Your task to perform on an android device: turn on translation in the chrome app Image 0: 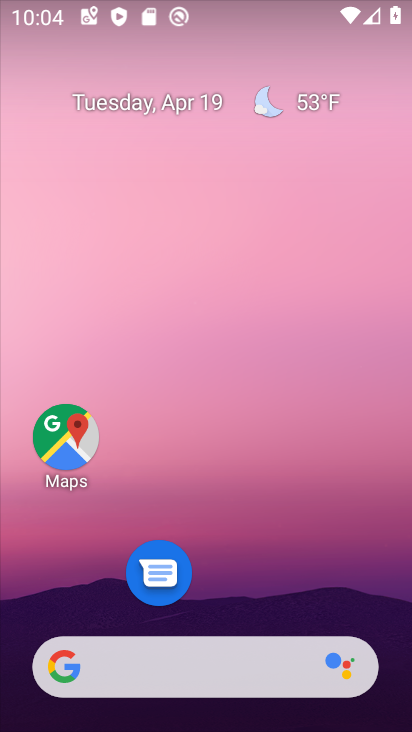
Step 0: drag from (226, 597) to (228, 40)
Your task to perform on an android device: turn on translation in the chrome app Image 1: 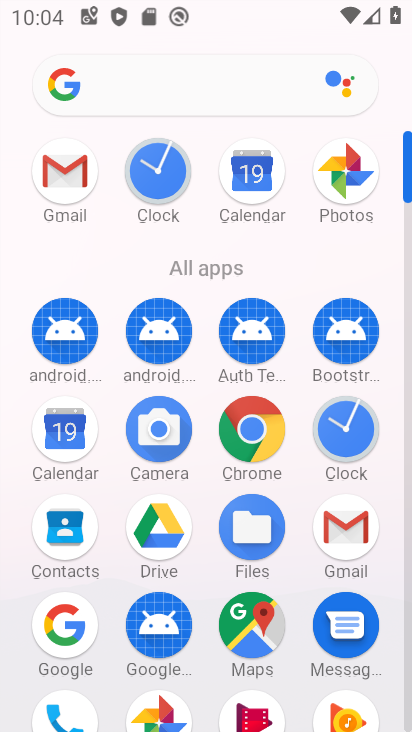
Step 1: click (262, 433)
Your task to perform on an android device: turn on translation in the chrome app Image 2: 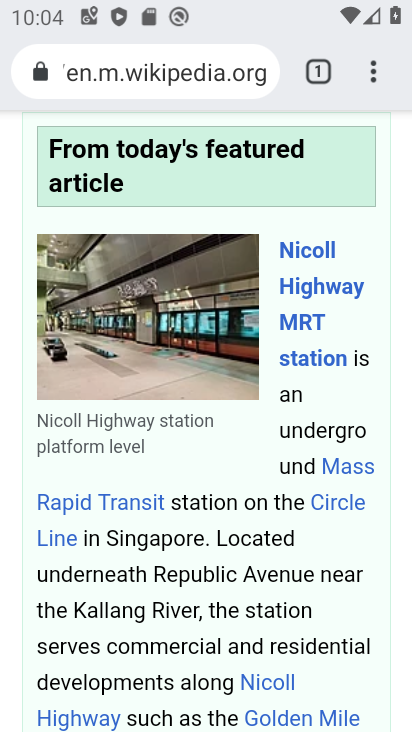
Step 2: click (368, 77)
Your task to perform on an android device: turn on translation in the chrome app Image 3: 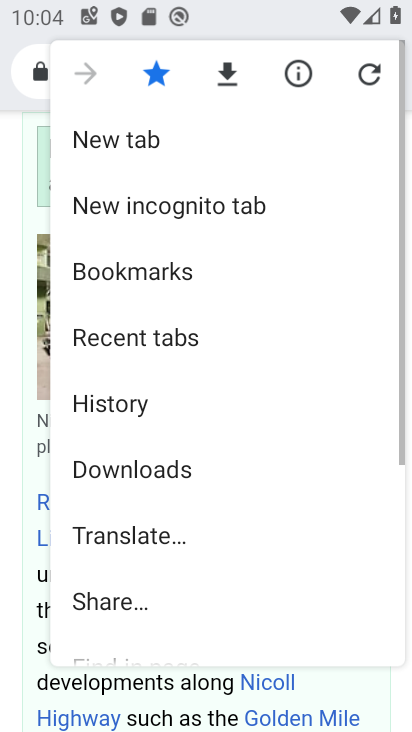
Step 3: drag from (195, 610) to (213, 240)
Your task to perform on an android device: turn on translation in the chrome app Image 4: 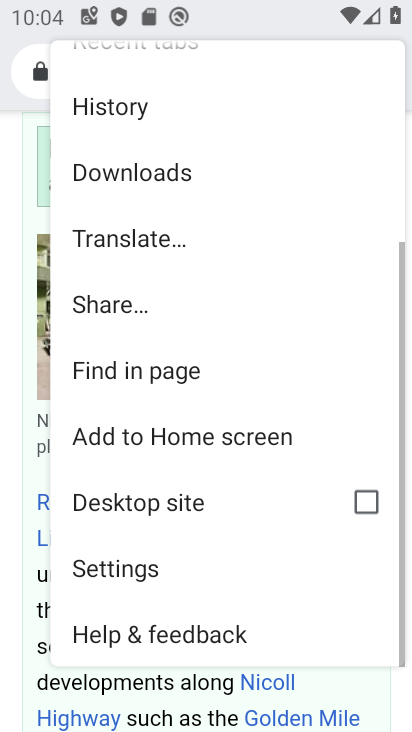
Step 4: click (146, 560)
Your task to perform on an android device: turn on translation in the chrome app Image 5: 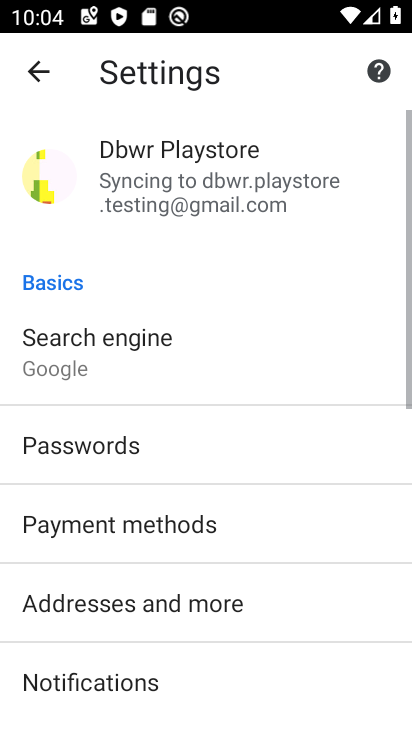
Step 5: drag from (244, 638) to (284, 206)
Your task to perform on an android device: turn on translation in the chrome app Image 6: 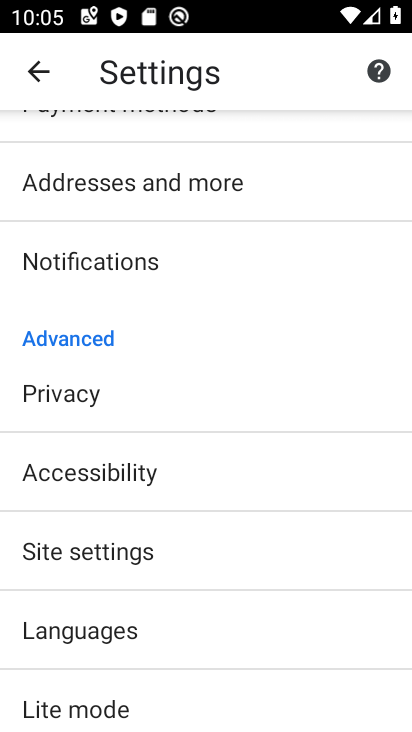
Step 6: click (157, 609)
Your task to perform on an android device: turn on translation in the chrome app Image 7: 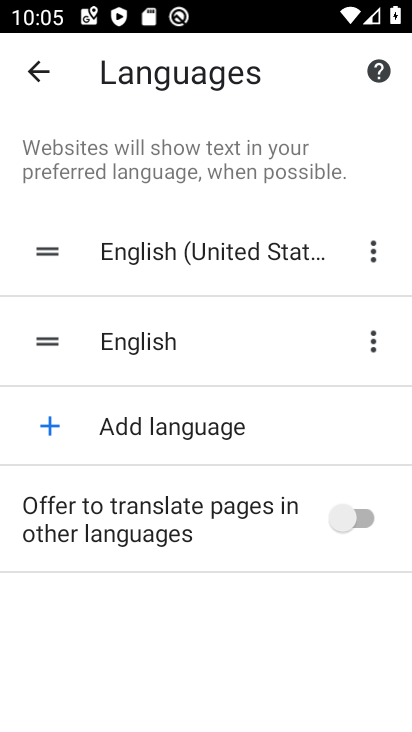
Step 7: click (366, 517)
Your task to perform on an android device: turn on translation in the chrome app Image 8: 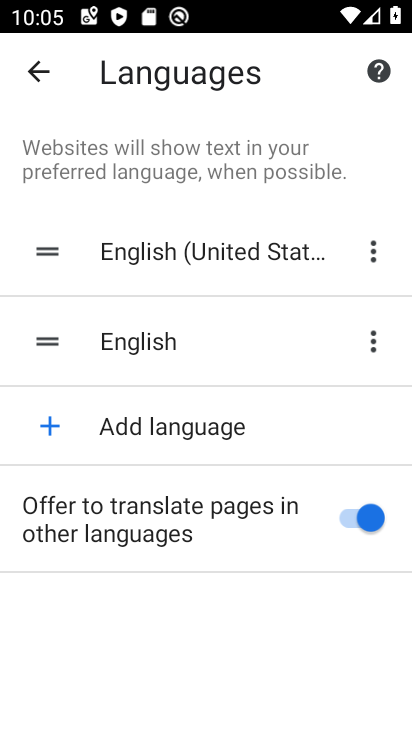
Step 8: task complete